Your task to perform on an android device: Open my contact list Image 0: 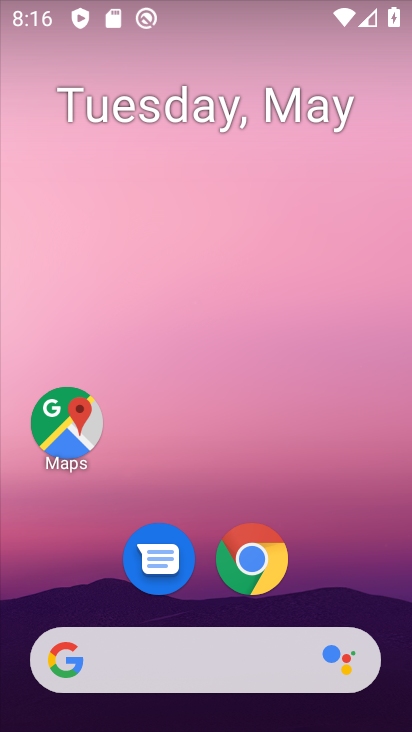
Step 0: drag from (254, 630) to (183, 44)
Your task to perform on an android device: Open my contact list Image 1: 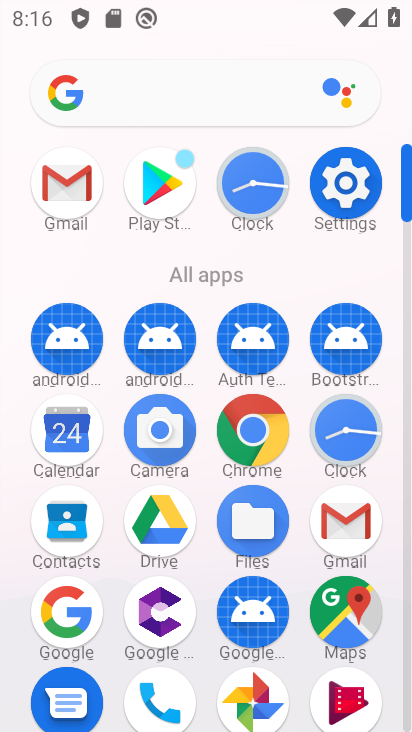
Step 1: click (68, 542)
Your task to perform on an android device: Open my contact list Image 2: 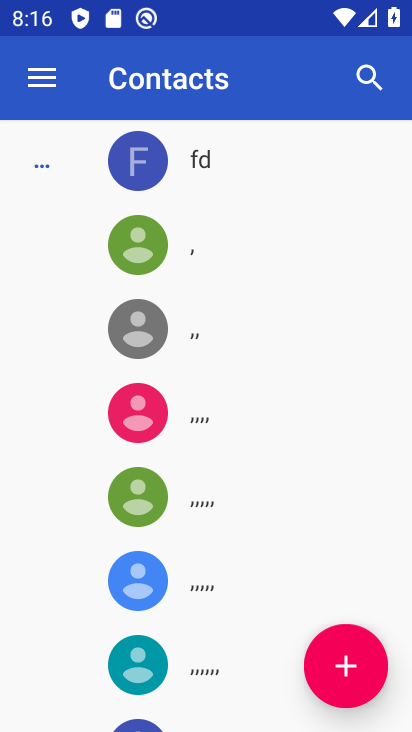
Step 2: task complete